Your task to perform on an android device: Toggle the flashlight Image 0: 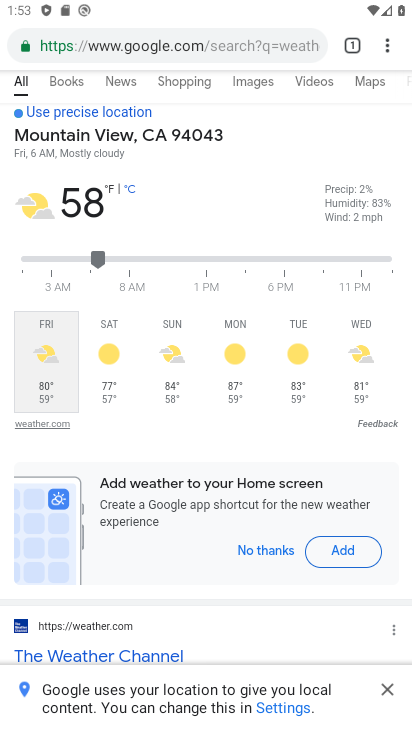
Step 0: press home button
Your task to perform on an android device: Toggle the flashlight Image 1: 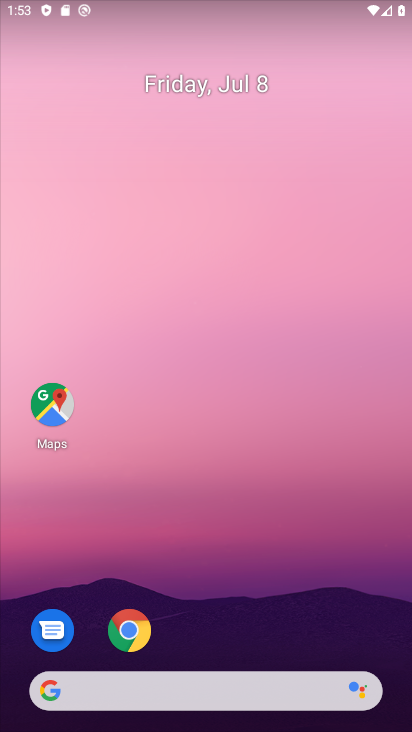
Step 1: drag from (309, 554) to (176, 66)
Your task to perform on an android device: Toggle the flashlight Image 2: 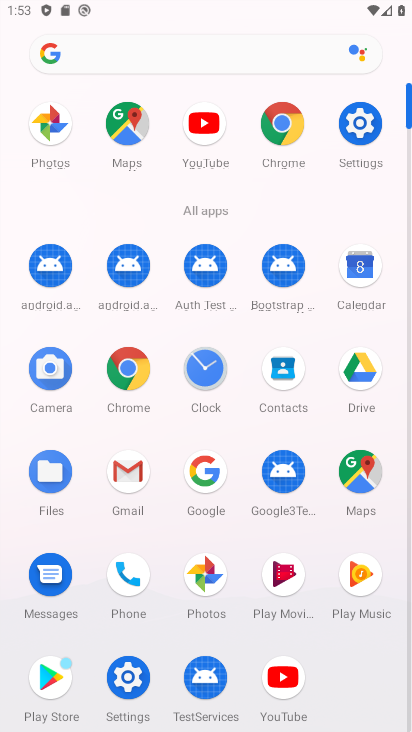
Step 2: click (366, 124)
Your task to perform on an android device: Toggle the flashlight Image 3: 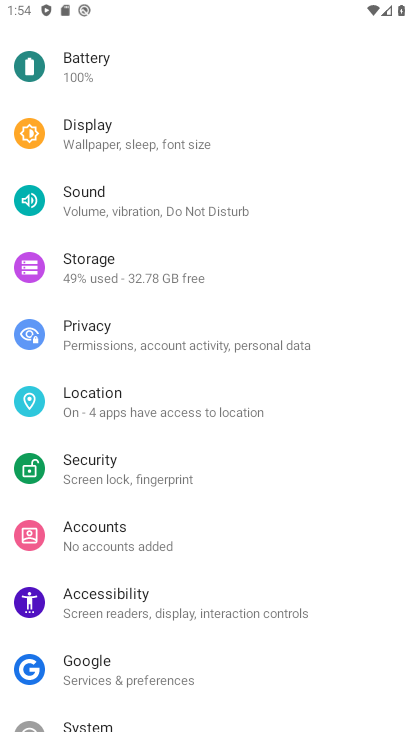
Step 3: drag from (171, 111) to (205, 394)
Your task to perform on an android device: Toggle the flashlight Image 4: 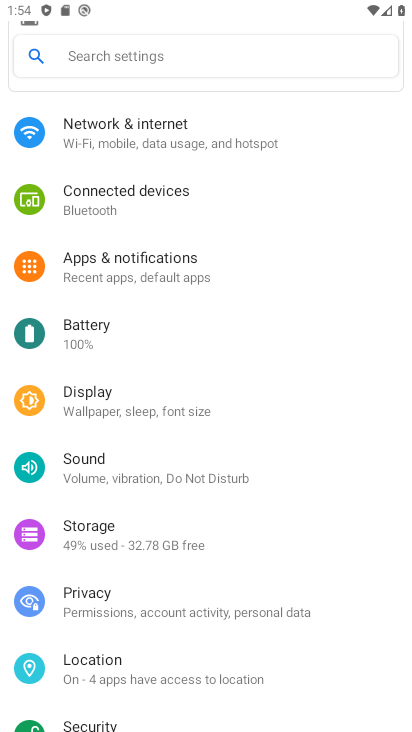
Step 4: click (100, 395)
Your task to perform on an android device: Toggle the flashlight Image 5: 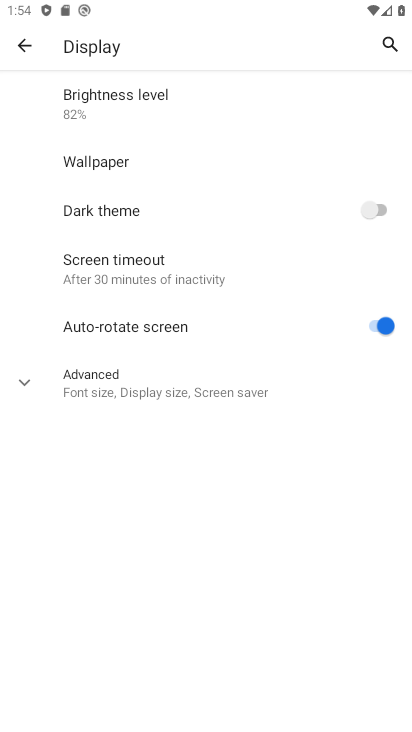
Step 5: click (167, 382)
Your task to perform on an android device: Toggle the flashlight Image 6: 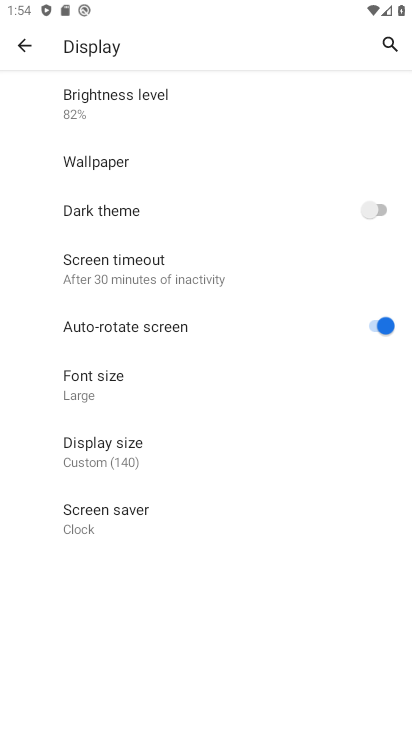
Step 6: task complete